Your task to perform on an android device: open chrome and create a bookmark for the current page Image 0: 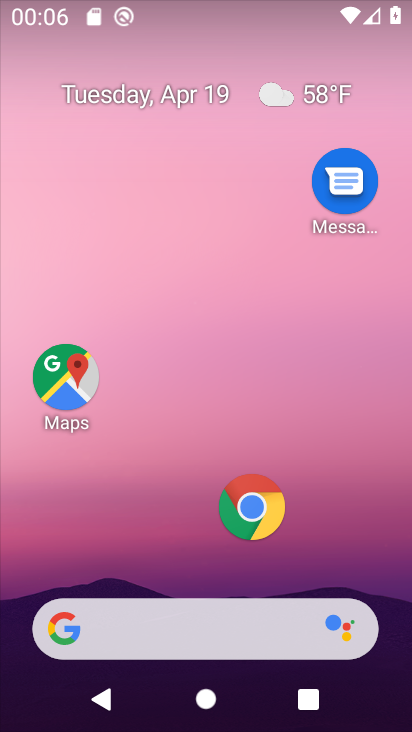
Step 0: click (265, 498)
Your task to perform on an android device: open chrome and create a bookmark for the current page Image 1: 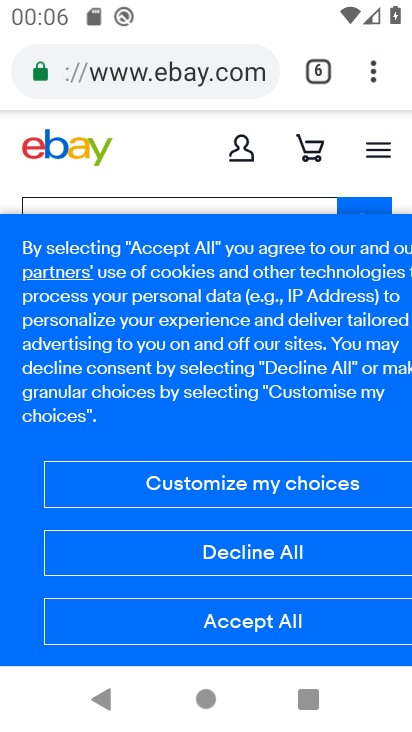
Step 1: click (158, 75)
Your task to perform on an android device: open chrome and create a bookmark for the current page Image 2: 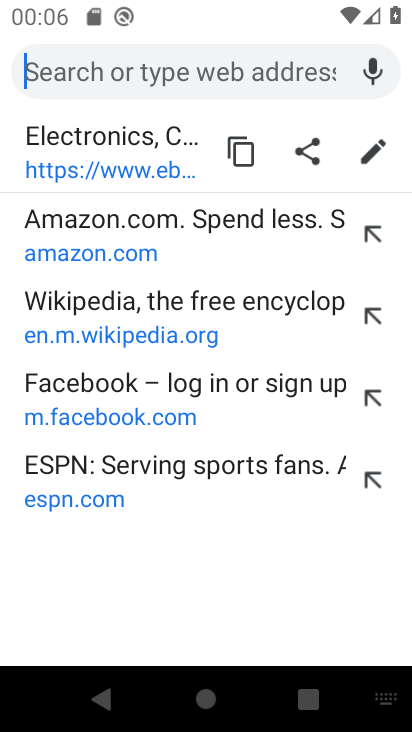
Step 2: type "damascus"
Your task to perform on an android device: open chrome and create a bookmark for the current page Image 3: 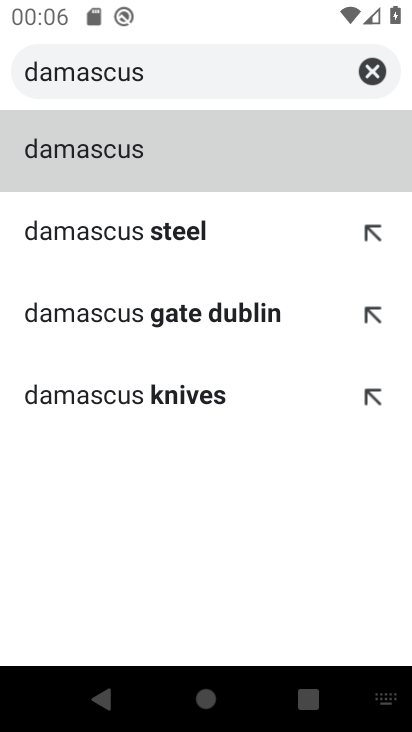
Step 3: click (151, 226)
Your task to perform on an android device: open chrome and create a bookmark for the current page Image 4: 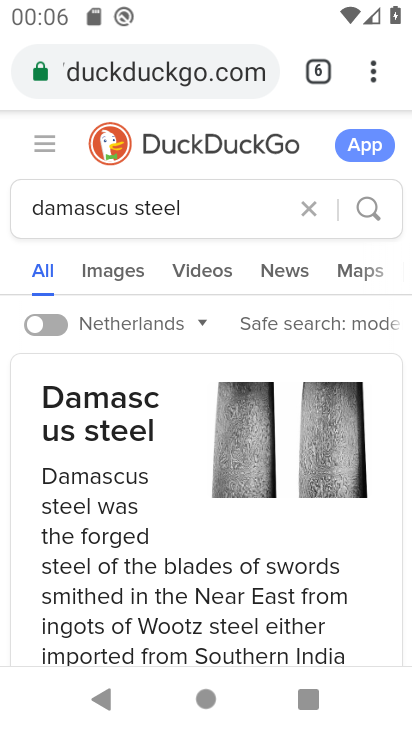
Step 4: click (374, 70)
Your task to perform on an android device: open chrome and create a bookmark for the current page Image 5: 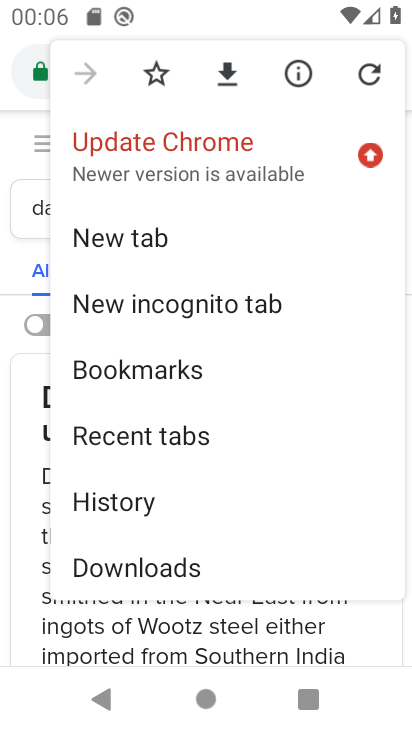
Step 5: click (156, 71)
Your task to perform on an android device: open chrome and create a bookmark for the current page Image 6: 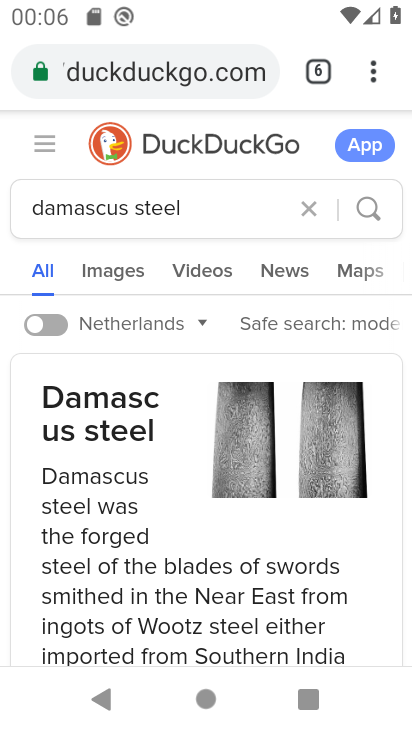
Step 6: task complete